Your task to perform on an android device: Search for vegetarian restaurants on Maps Image 0: 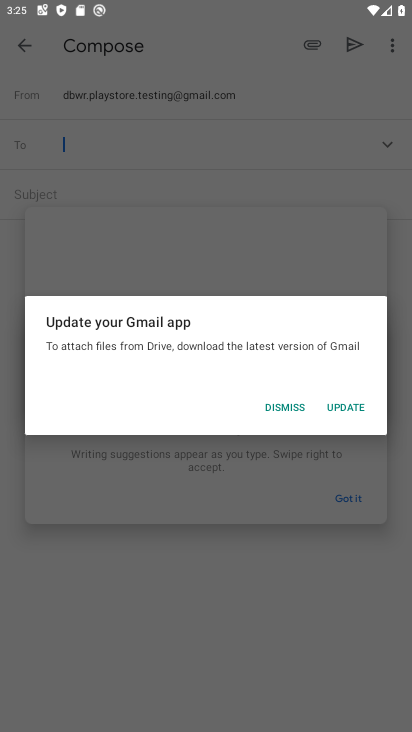
Step 0: press back button
Your task to perform on an android device: Search for vegetarian restaurants on Maps Image 1: 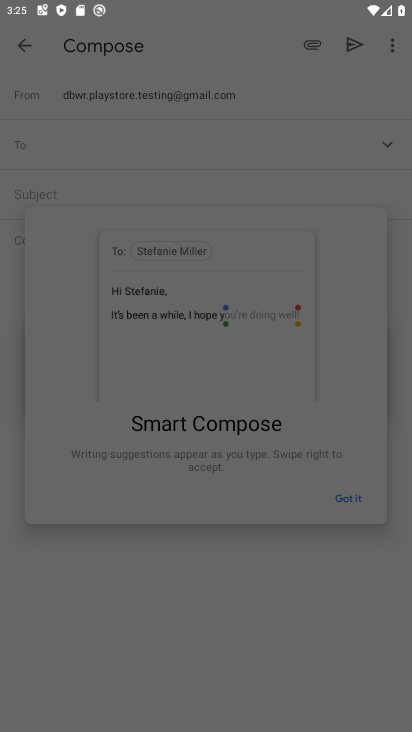
Step 1: press back button
Your task to perform on an android device: Search for vegetarian restaurants on Maps Image 2: 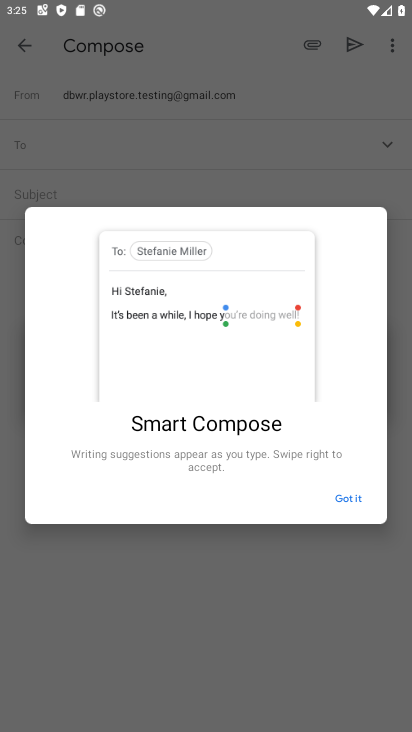
Step 2: press home button
Your task to perform on an android device: Search for vegetarian restaurants on Maps Image 3: 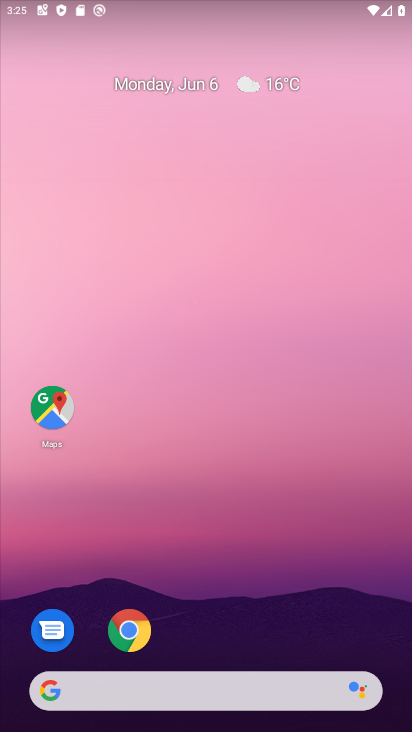
Step 3: click (30, 390)
Your task to perform on an android device: Search for vegetarian restaurants on Maps Image 4: 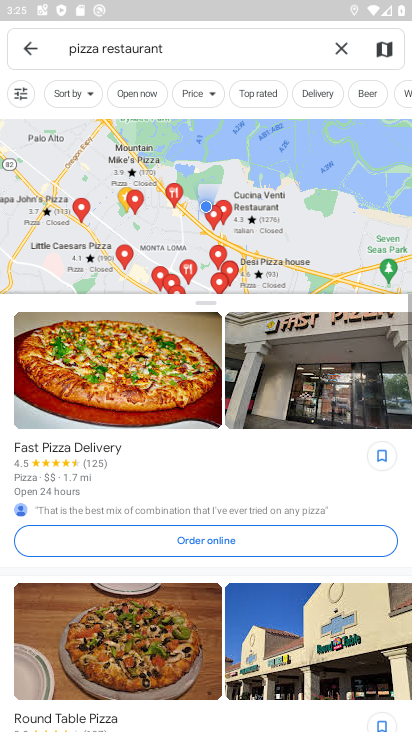
Step 4: click (333, 43)
Your task to perform on an android device: Search for vegetarian restaurants on Maps Image 5: 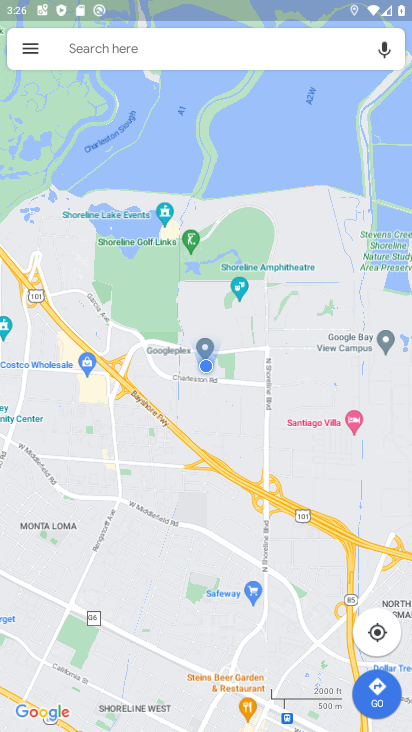
Step 5: click (156, 47)
Your task to perform on an android device: Search for vegetarian restaurants on Maps Image 6: 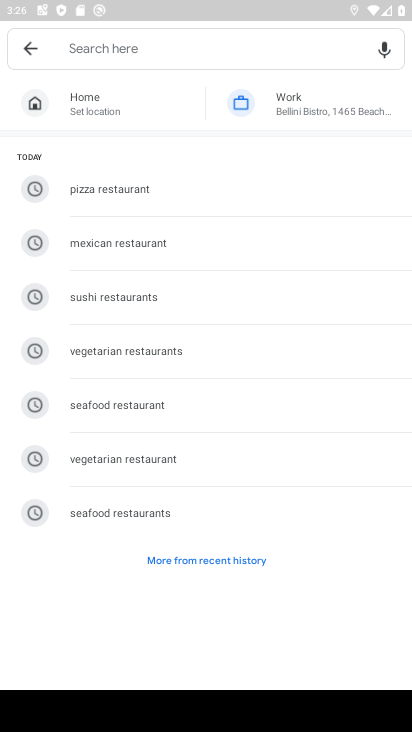
Step 6: click (144, 349)
Your task to perform on an android device: Search for vegetarian restaurants on Maps Image 7: 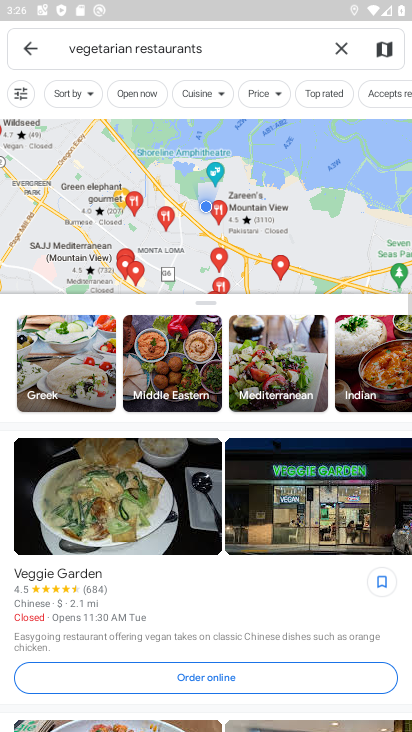
Step 7: task complete